Your task to perform on an android device: check out phone information Image 0: 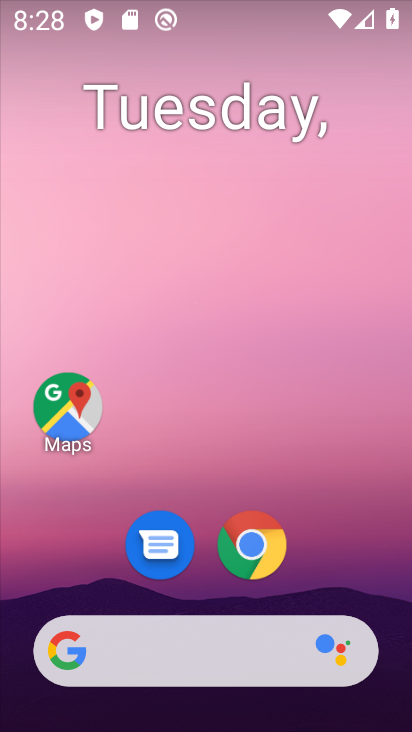
Step 0: drag from (333, 522) to (383, 81)
Your task to perform on an android device: check out phone information Image 1: 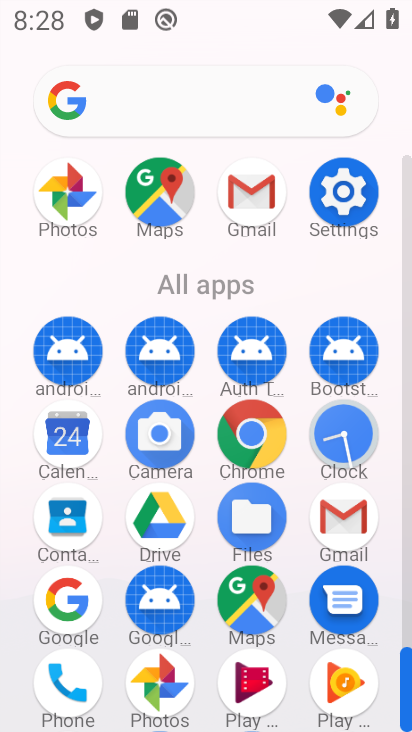
Step 1: click (351, 201)
Your task to perform on an android device: check out phone information Image 2: 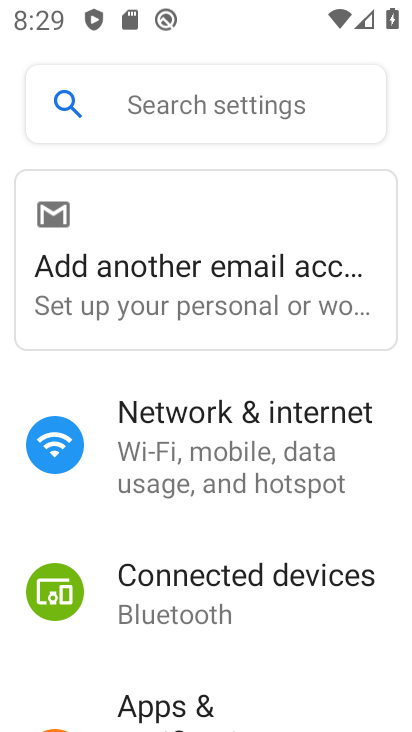
Step 2: drag from (63, 596) to (72, 0)
Your task to perform on an android device: check out phone information Image 3: 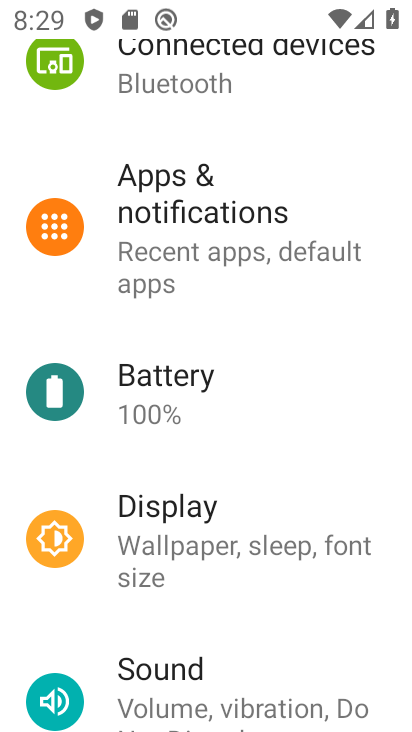
Step 3: drag from (174, 613) to (272, 118)
Your task to perform on an android device: check out phone information Image 4: 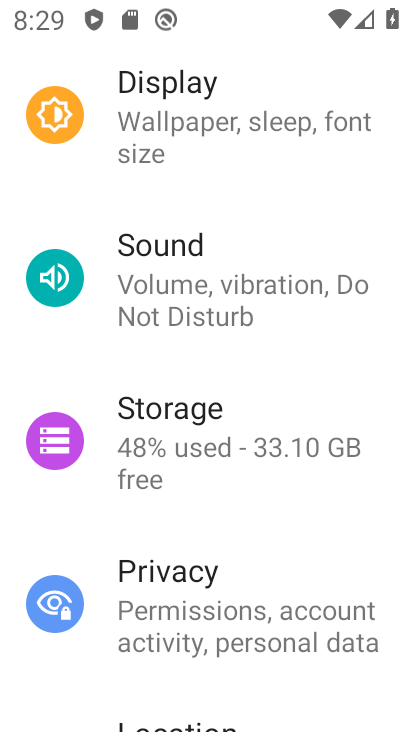
Step 4: drag from (109, 603) to (202, 162)
Your task to perform on an android device: check out phone information Image 5: 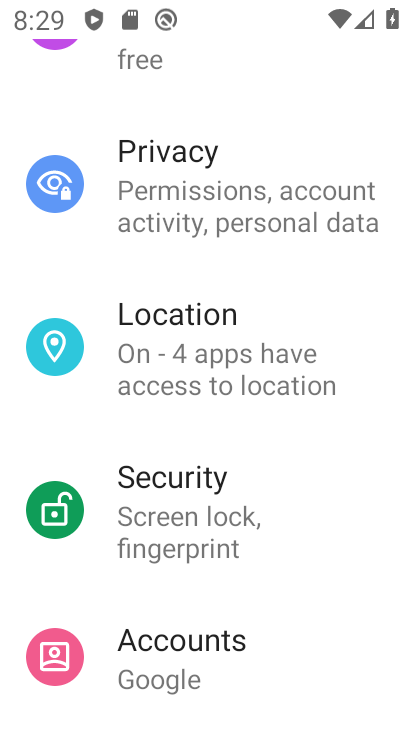
Step 5: drag from (210, 559) to (267, 131)
Your task to perform on an android device: check out phone information Image 6: 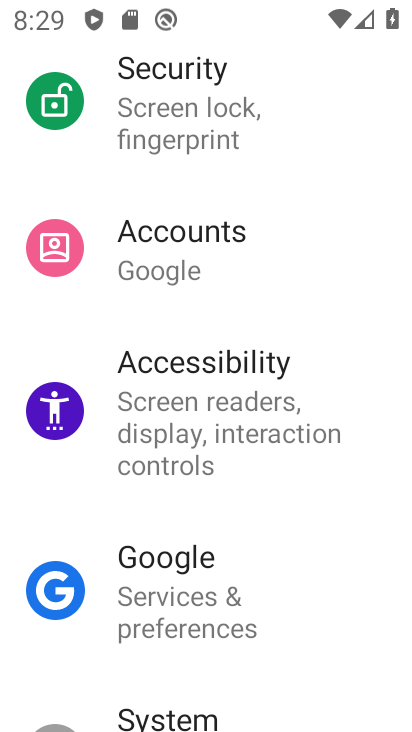
Step 6: drag from (259, 591) to (252, 140)
Your task to perform on an android device: check out phone information Image 7: 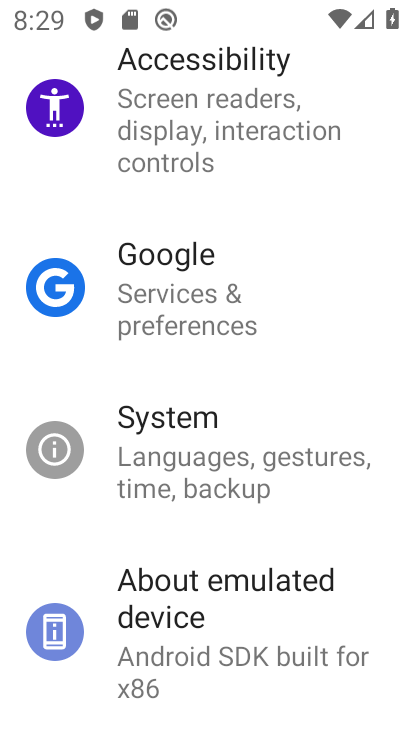
Step 7: click (194, 662)
Your task to perform on an android device: check out phone information Image 8: 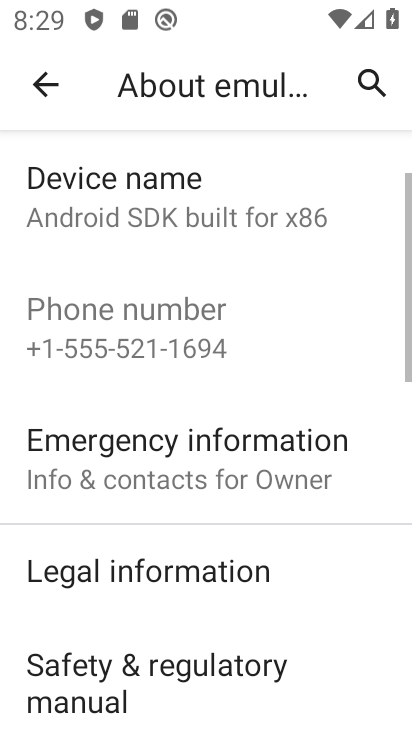
Step 8: task complete